Your task to perform on an android device: What's on my calendar today? Image 0: 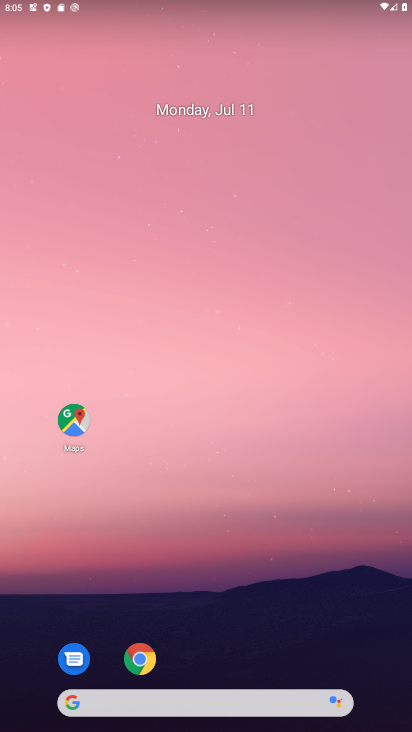
Step 0: drag from (182, 662) to (182, 296)
Your task to perform on an android device: What's on my calendar today? Image 1: 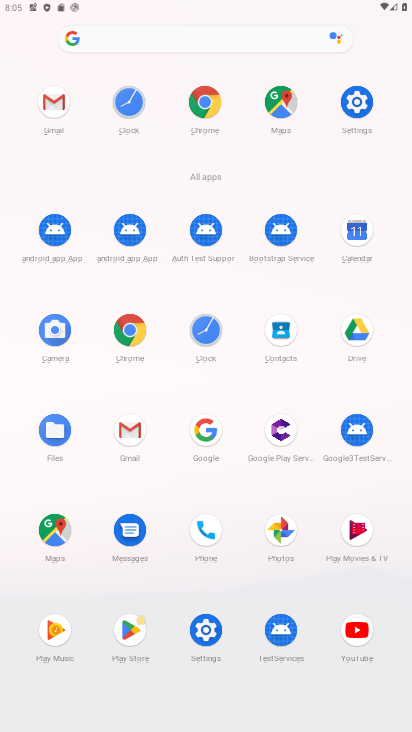
Step 1: click (354, 234)
Your task to perform on an android device: What's on my calendar today? Image 2: 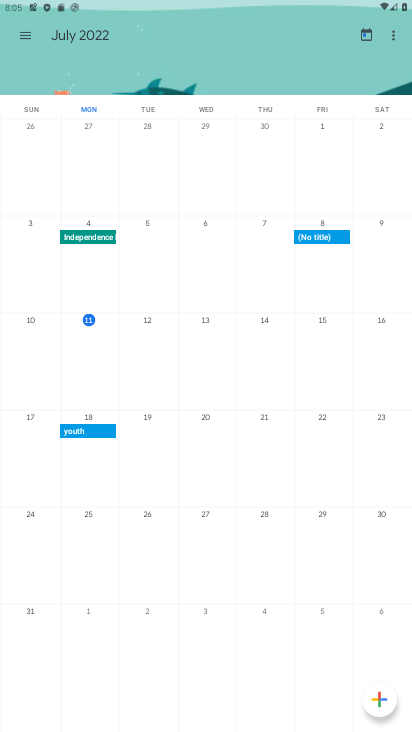
Step 2: drag from (222, 596) to (251, 358)
Your task to perform on an android device: What's on my calendar today? Image 3: 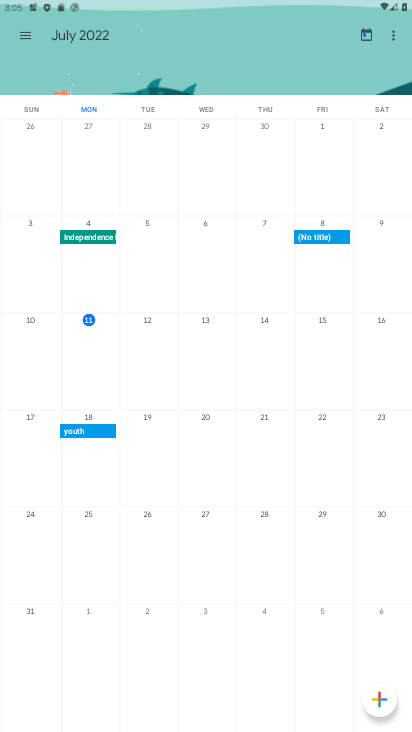
Step 3: click (89, 319)
Your task to perform on an android device: What's on my calendar today? Image 4: 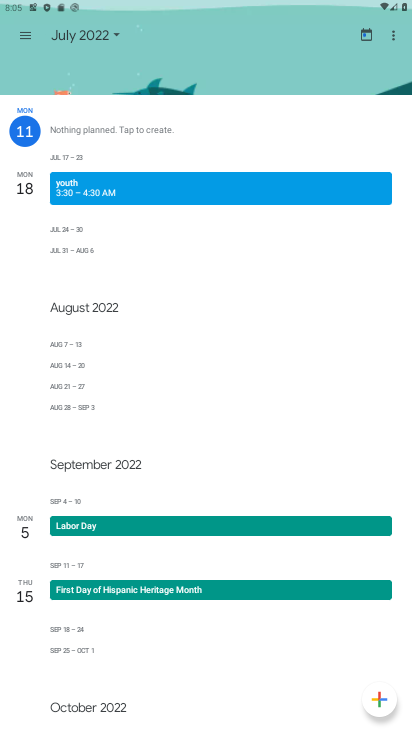
Step 4: task complete